Your task to perform on an android device: How do I get to the nearest Walmart? Image 0: 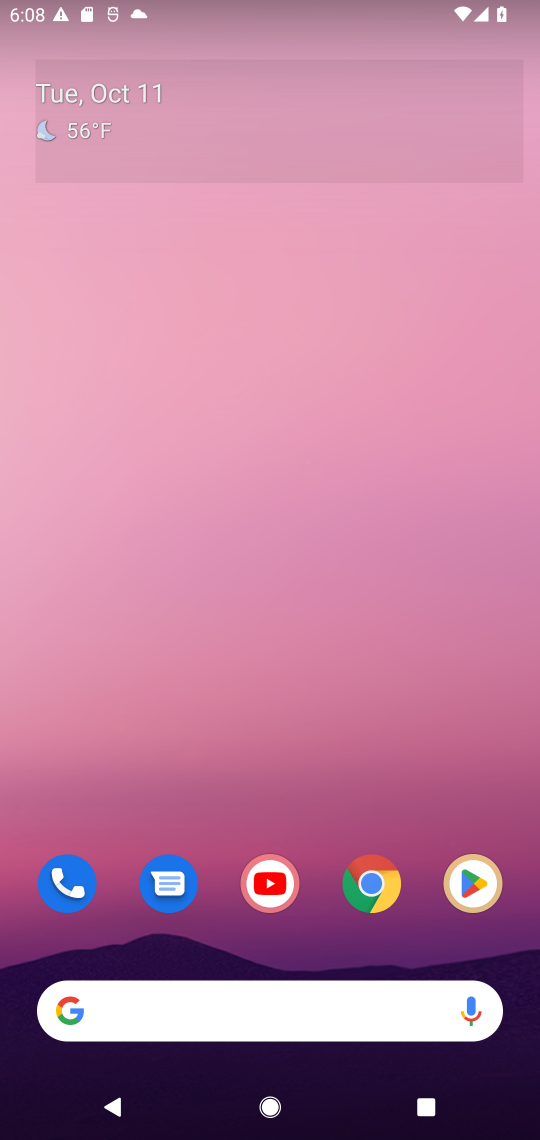
Step 0: drag from (286, 948) to (14, 2)
Your task to perform on an android device: How do I get to the nearest Walmart? Image 1: 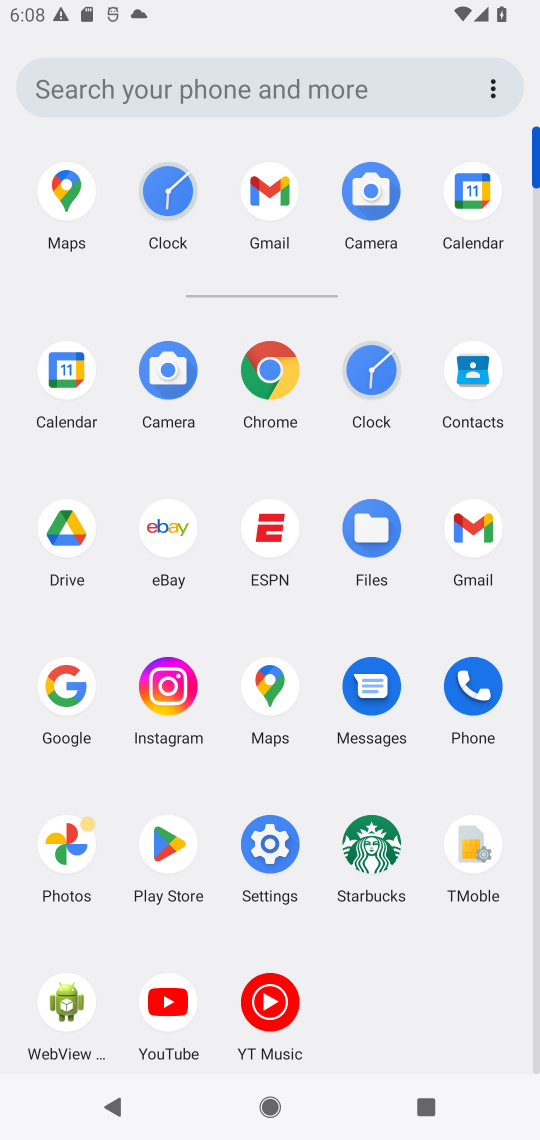
Step 1: click (260, 373)
Your task to perform on an android device: How do I get to the nearest Walmart? Image 2: 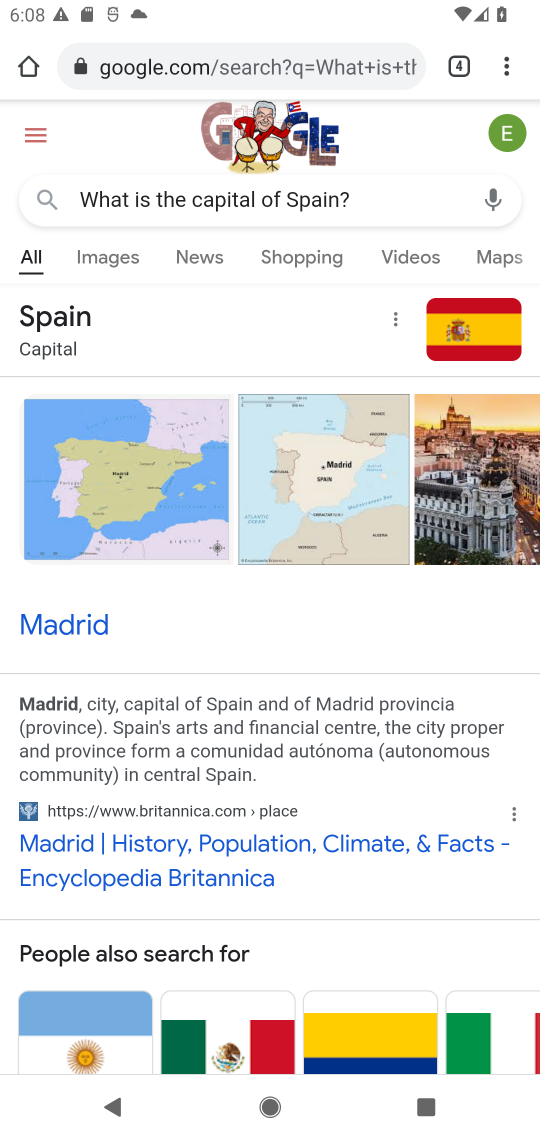
Step 2: click (225, 195)
Your task to perform on an android device: How do I get to the nearest Walmart? Image 3: 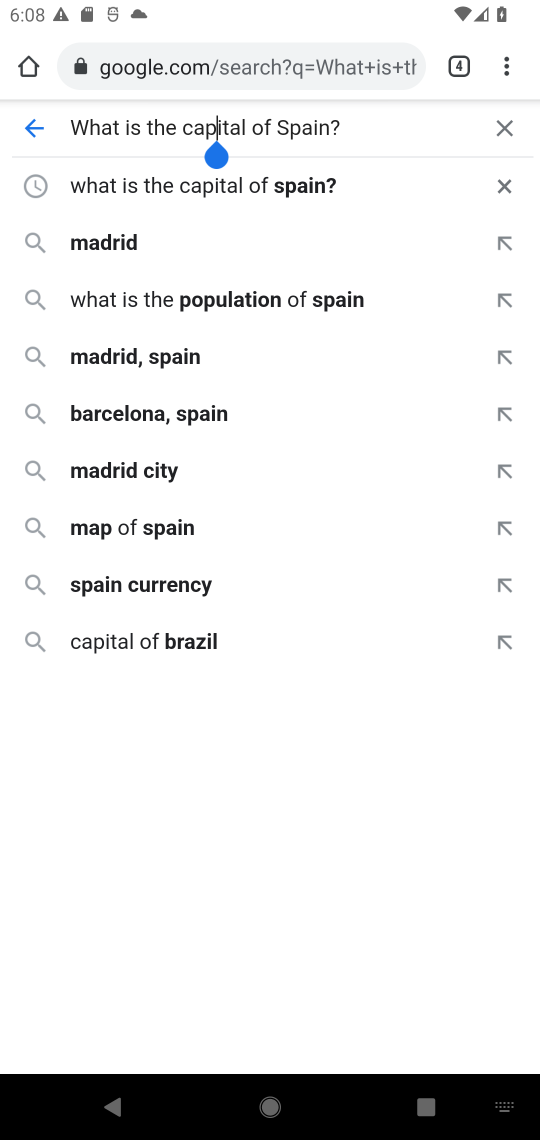
Step 3: click (504, 126)
Your task to perform on an android device: How do I get to the nearest Walmart? Image 4: 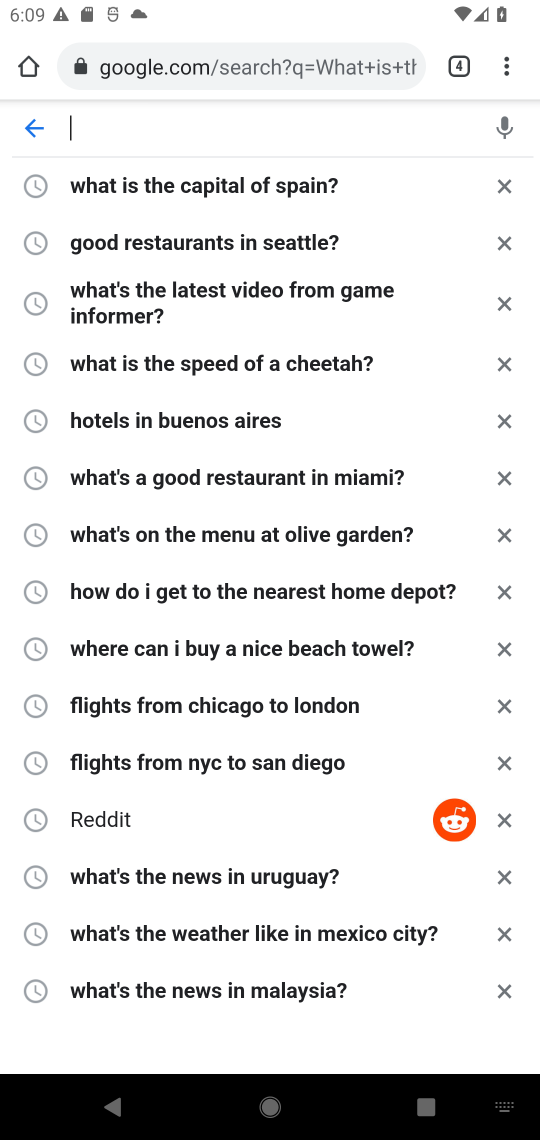
Step 4: type "How do I get to the nearest Walmart?"
Your task to perform on an android device: How do I get to the nearest Walmart? Image 5: 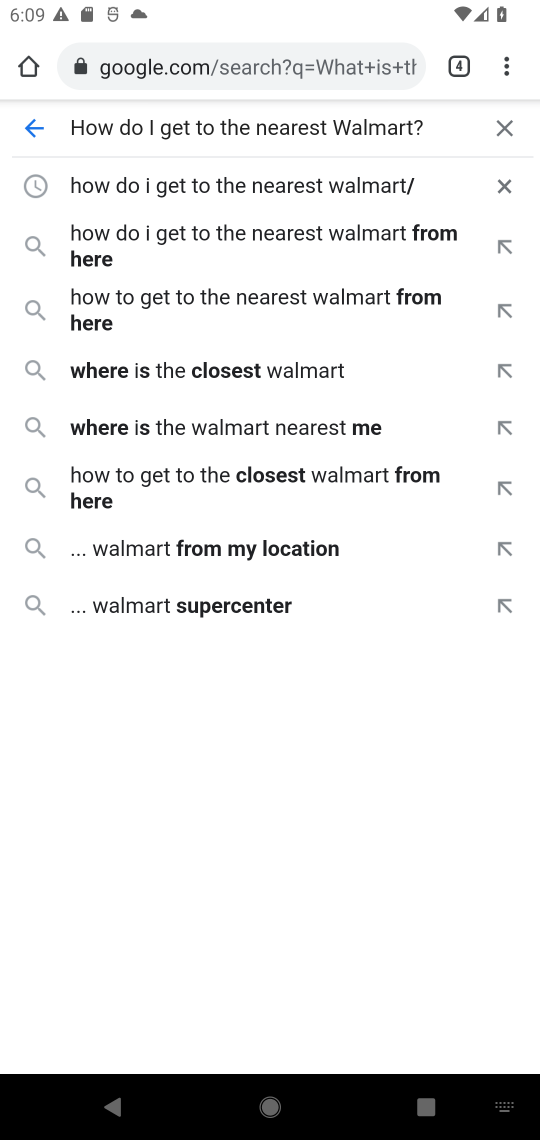
Step 5: press enter
Your task to perform on an android device: How do I get to the nearest Walmart? Image 6: 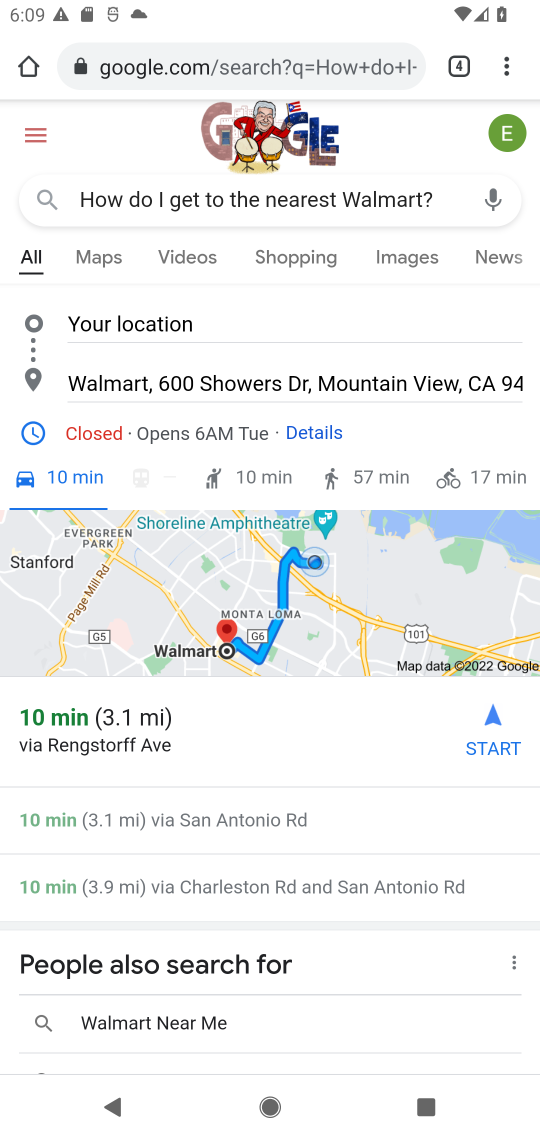
Step 6: task complete